Your task to perform on an android device: Play the last video I watched on Youtube Image 0: 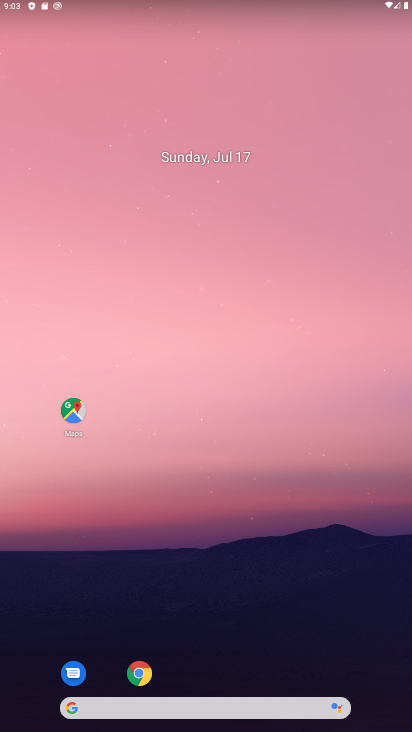
Step 0: drag from (309, 621) to (407, 407)
Your task to perform on an android device: Play the last video I watched on Youtube Image 1: 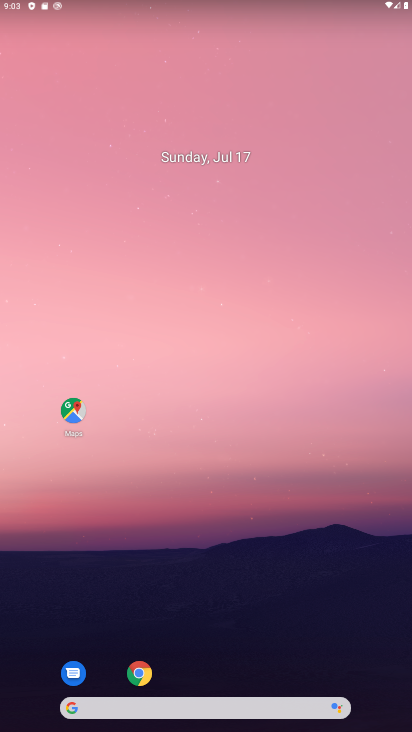
Step 1: click (266, 585)
Your task to perform on an android device: Play the last video I watched on Youtube Image 2: 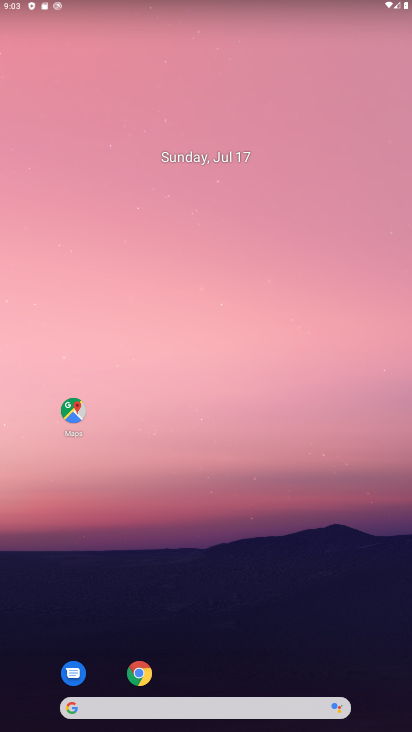
Step 2: drag from (328, 680) to (269, 44)
Your task to perform on an android device: Play the last video I watched on Youtube Image 3: 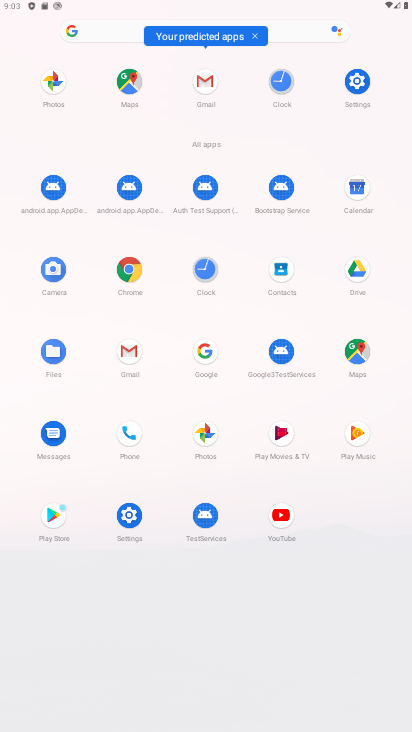
Step 3: click (280, 514)
Your task to perform on an android device: Play the last video I watched on Youtube Image 4: 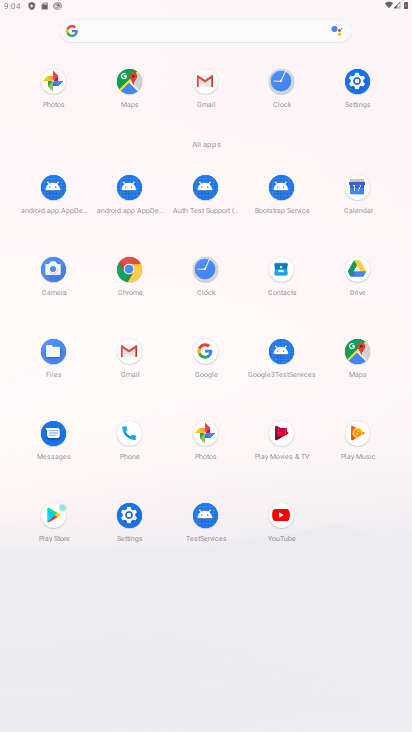
Step 4: click (280, 514)
Your task to perform on an android device: Play the last video I watched on Youtube Image 5: 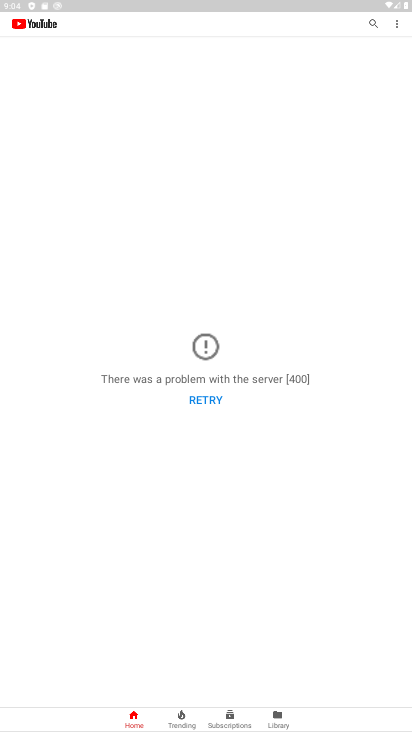
Step 5: click (280, 719)
Your task to perform on an android device: Play the last video I watched on Youtube Image 6: 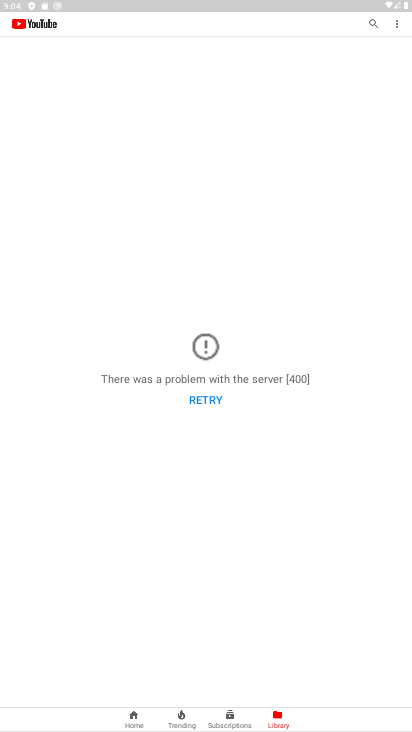
Step 6: task complete